Your task to perform on an android device: Go to Google maps Image 0: 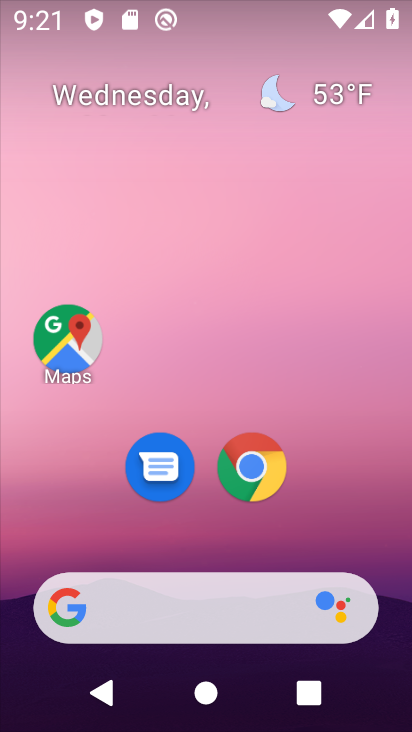
Step 0: press home button
Your task to perform on an android device: Go to Google maps Image 1: 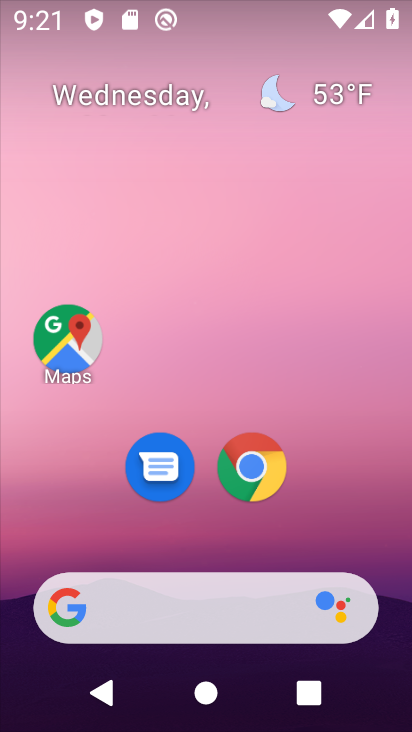
Step 1: click (47, 360)
Your task to perform on an android device: Go to Google maps Image 2: 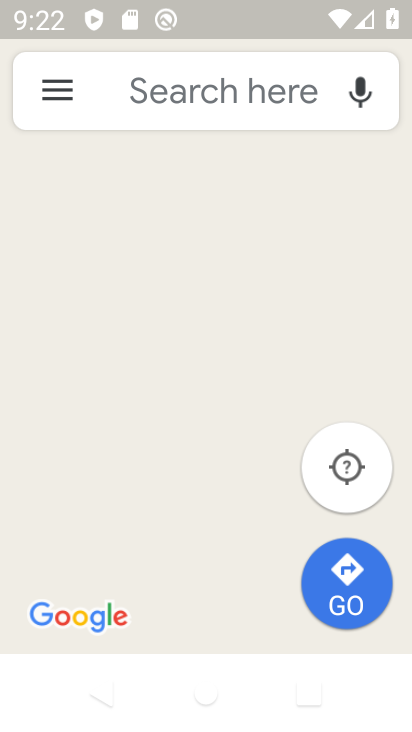
Step 2: task complete